Your task to perform on an android device: open a new tab in the chrome app Image 0: 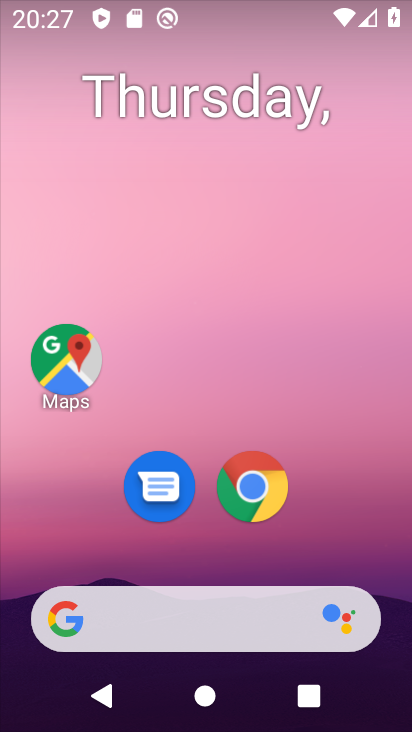
Step 0: drag from (240, 558) to (98, 58)
Your task to perform on an android device: open a new tab in the chrome app Image 1: 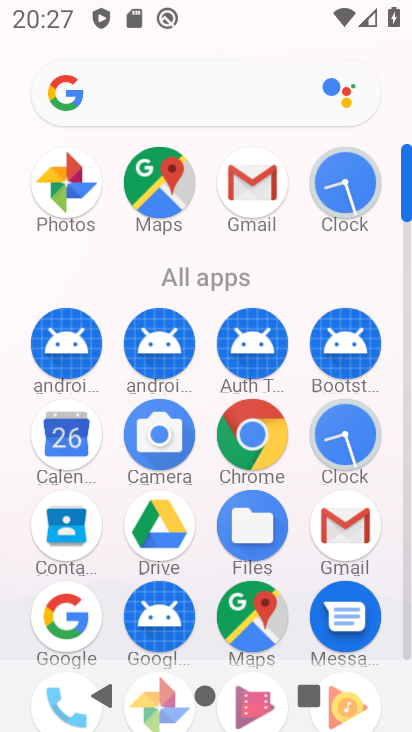
Step 1: click (254, 447)
Your task to perform on an android device: open a new tab in the chrome app Image 2: 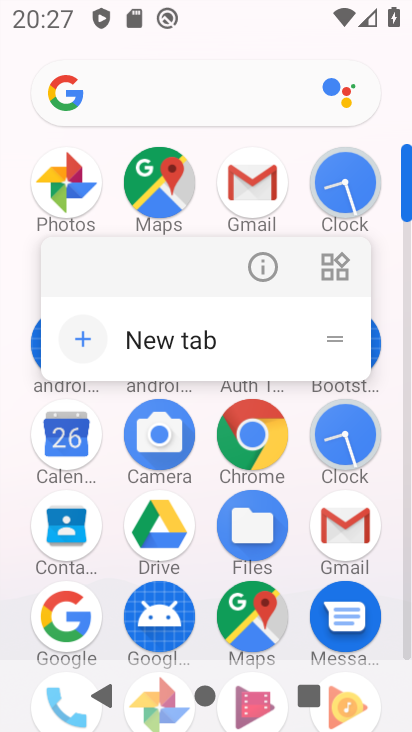
Step 2: click (262, 450)
Your task to perform on an android device: open a new tab in the chrome app Image 3: 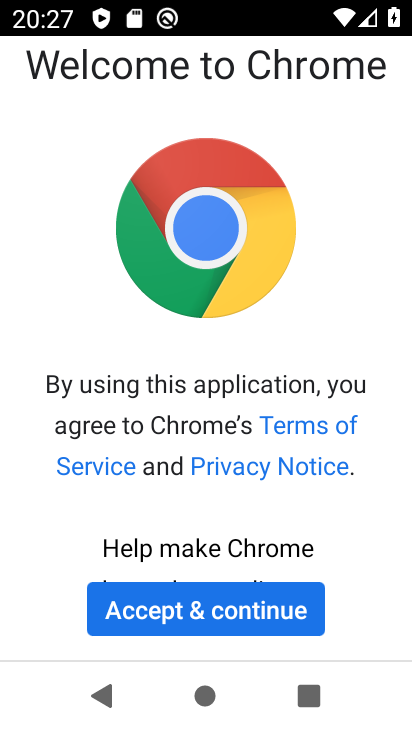
Step 3: click (187, 592)
Your task to perform on an android device: open a new tab in the chrome app Image 4: 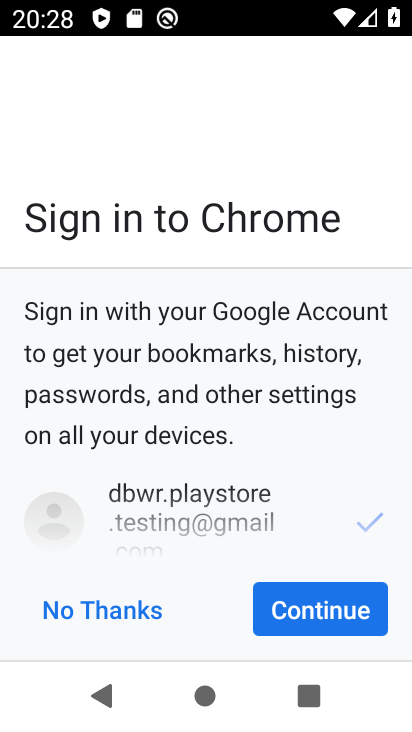
Step 4: click (360, 617)
Your task to perform on an android device: open a new tab in the chrome app Image 5: 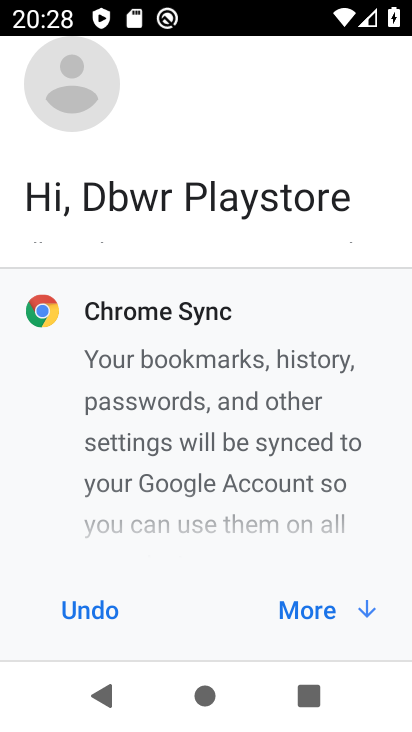
Step 5: click (294, 609)
Your task to perform on an android device: open a new tab in the chrome app Image 6: 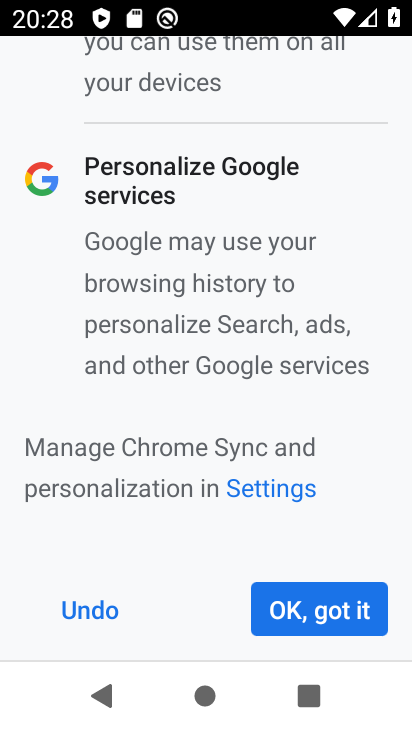
Step 6: click (329, 613)
Your task to perform on an android device: open a new tab in the chrome app Image 7: 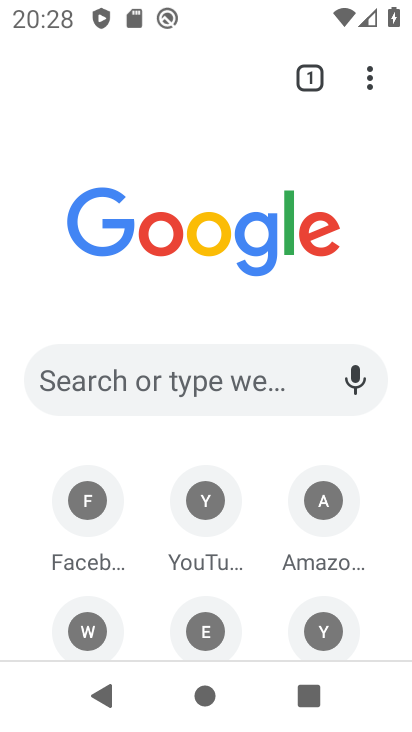
Step 7: click (304, 87)
Your task to perform on an android device: open a new tab in the chrome app Image 8: 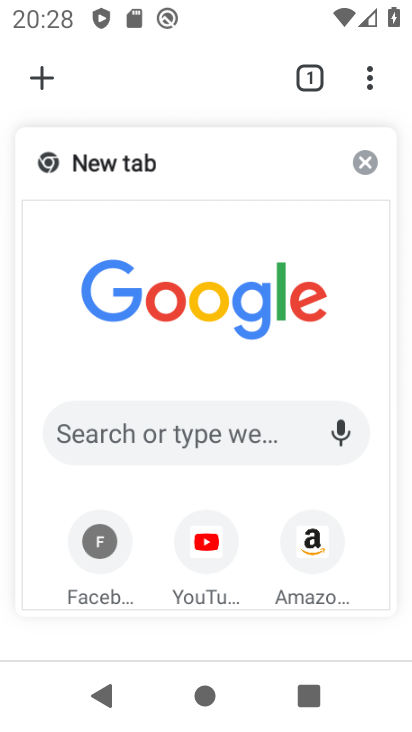
Step 8: click (35, 77)
Your task to perform on an android device: open a new tab in the chrome app Image 9: 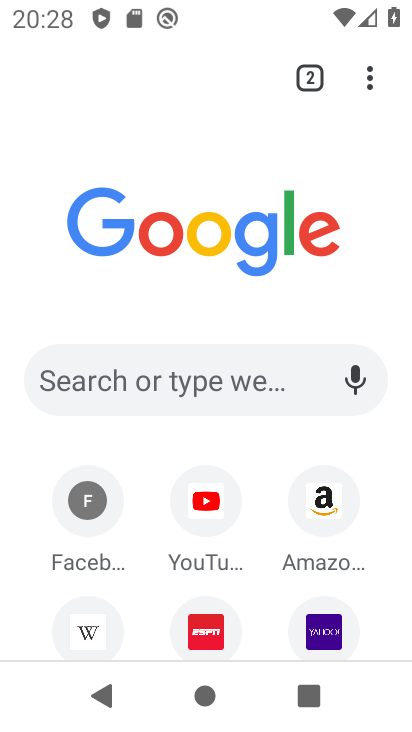
Step 9: task complete